Your task to perform on an android device: turn on bluetooth scan Image 0: 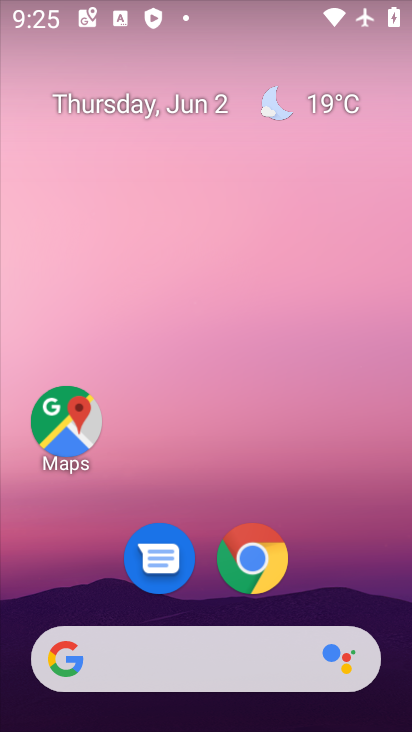
Step 0: drag from (387, 606) to (292, 65)
Your task to perform on an android device: turn on bluetooth scan Image 1: 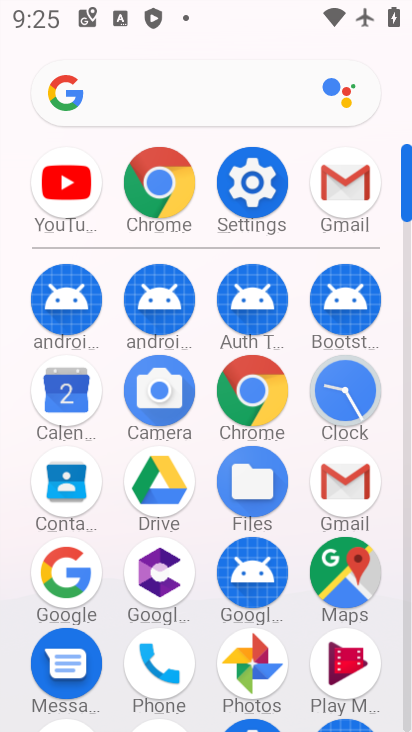
Step 1: click (406, 681)
Your task to perform on an android device: turn on bluetooth scan Image 2: 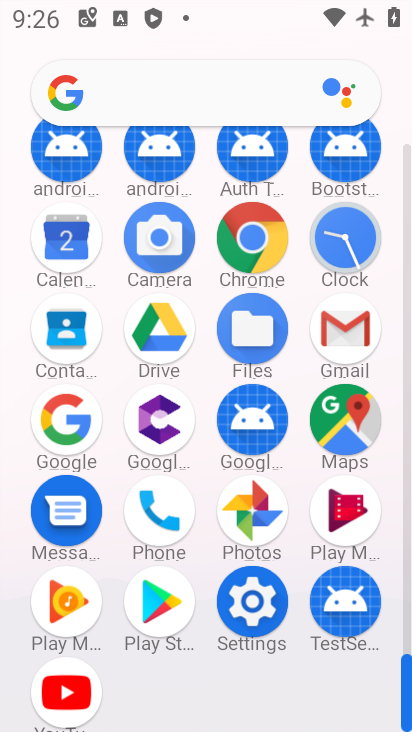
Step 2: click (249, 600)
Your task to perform on an android device: turn on bluetooth scan Image 3: 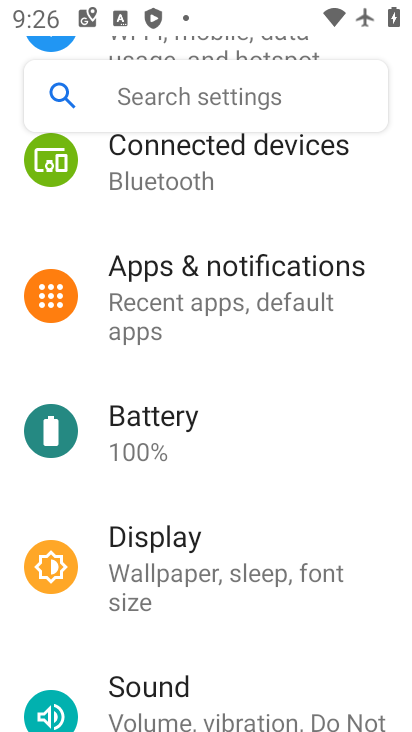
Step 3: drag from (239, 602) to (247, 262)
Your task to perform on an android device: turn on bluetooth scan Image 4: 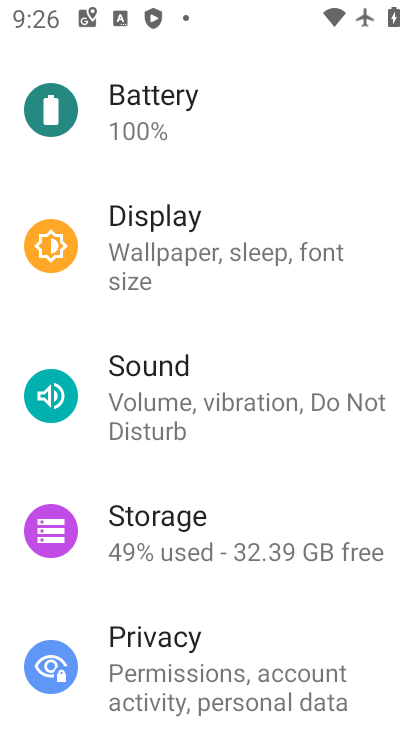
Step 4: drag from (312, 678) to (269, 311)
Your task to perform on an android device: turn on bluetooth scan Image 5: 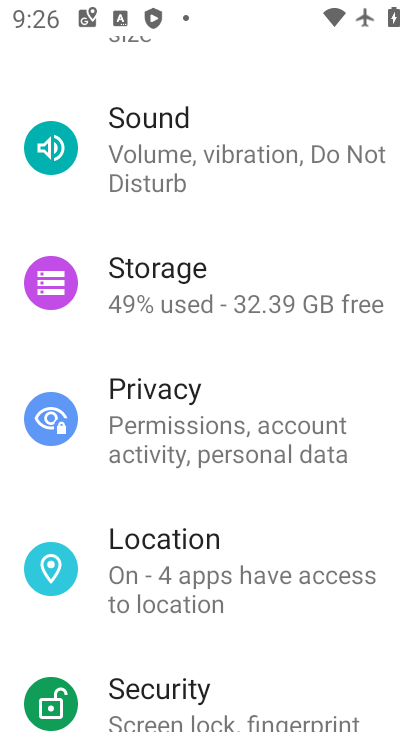
Step 5: click (171, 577)
Your task to perform on an android device: turn on bluetooth scan Image 6: 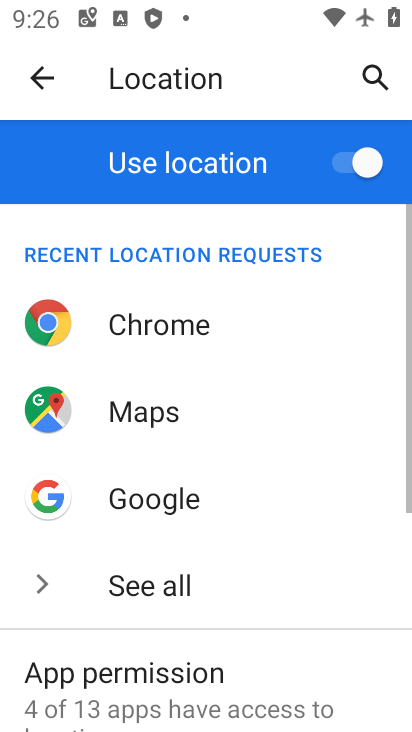
Step 6: drag from (245, 651) to (259, 318)
Your task to perform on an android device: turn on bluetooth scan Image 7: 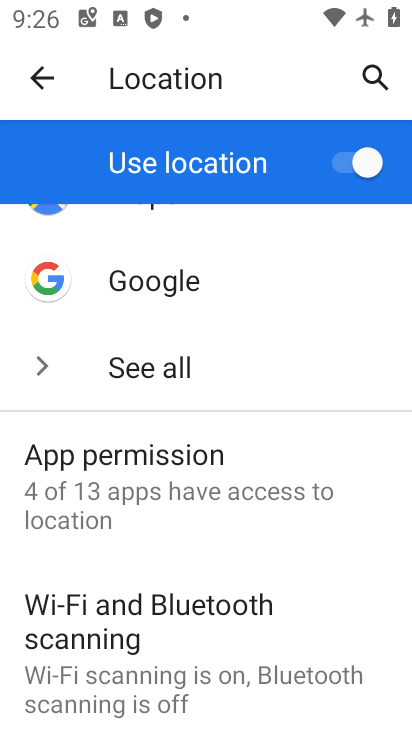
Step 7: drag from (260, 597) to (262, 286)
Your task to perform on an android device: turn on bluetooth scan Image 8: 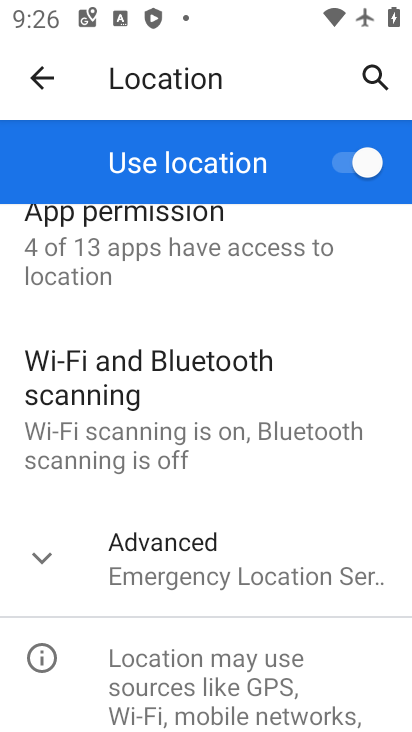
Step 8: click (105, 384)
Your task to perform on an android device: turn on bluetooth scan Image 9: 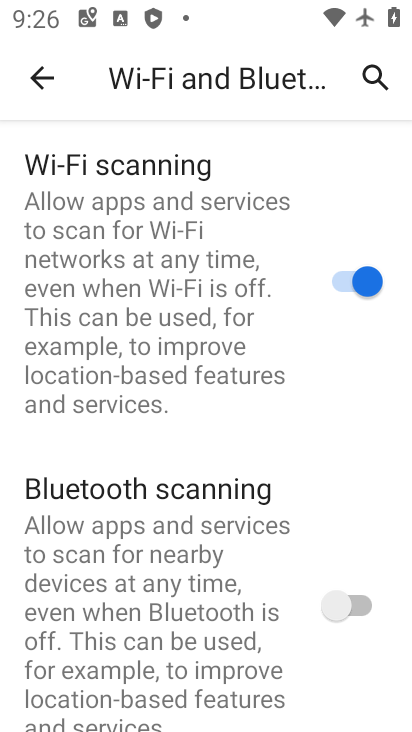
Step 9: click (364, 602)
Your task to perform on an android device: turn on bluetooth scan Image 10: 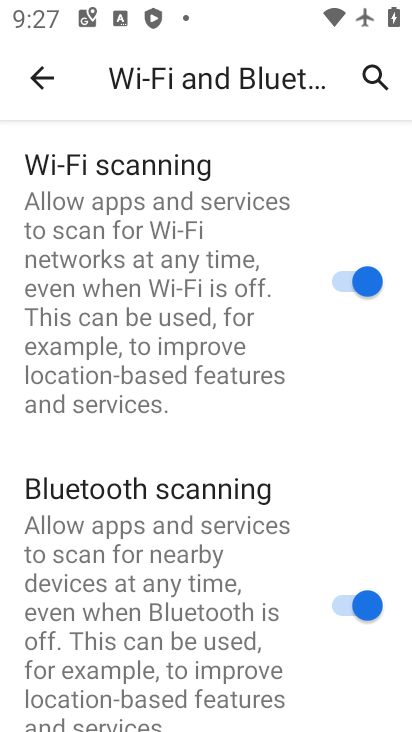
Step 10: task complete